Your task to perform on an android device: toggle notification dots Image 0: 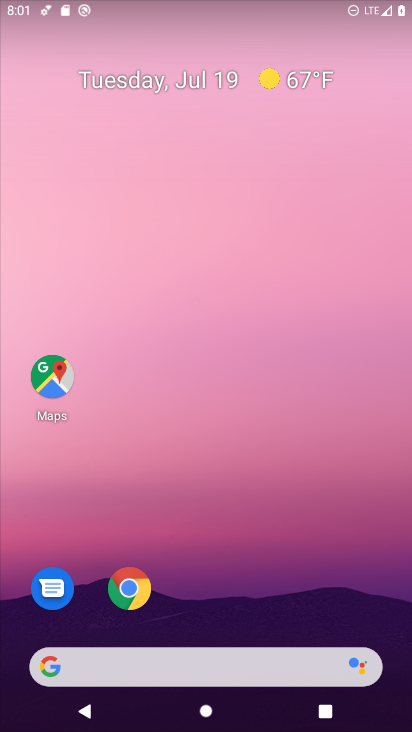
Step 0: drag from (363, 608) to (356, 142)
Your task to perform on an android device: toggle notification dots Image 1: 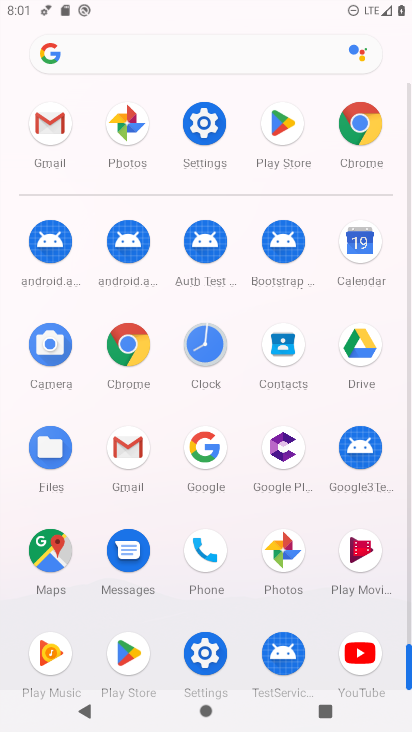
Step 1: click (208, 133)
Your task to perform on an android device: toggle notification dots Image 2: 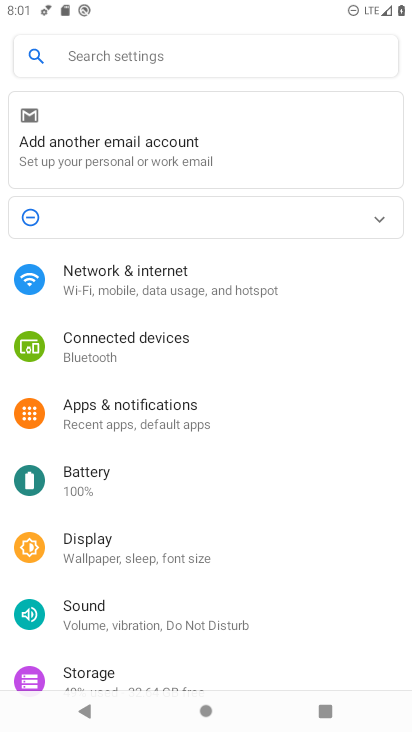
Step 2: drag from (353, 514) to (353, 403)
Your task to perform on an android device: toggle notification dots Image 3: 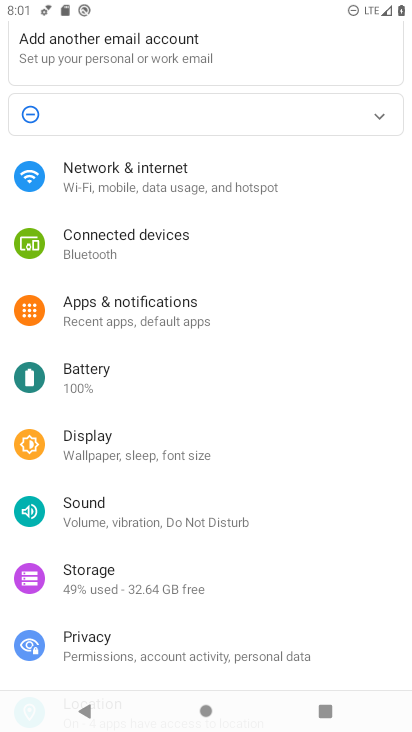
Step 3: drag from (338, 519) to (337, 407)
Your task to perform on an android device: toggle notification dots Image 4: 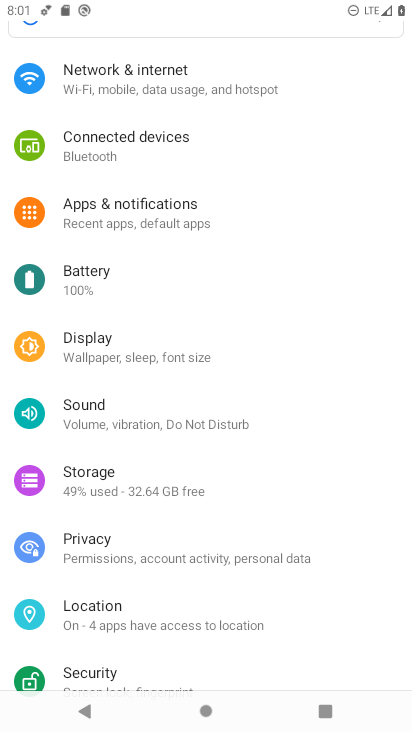
Step 4: drag from (347, 535) to (351, 448)
Your task to perform on an android device: toggle notification dots Image 5: 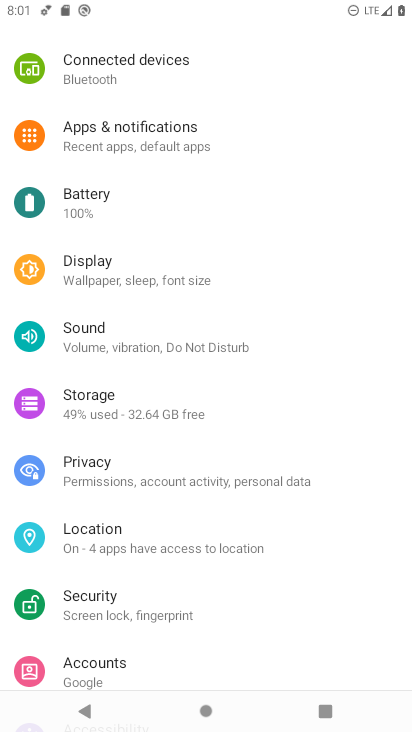
Step 5: drag from (345, 540) to (343, 443)
Your task to perform on an android device: toggle notification dots Image 6: 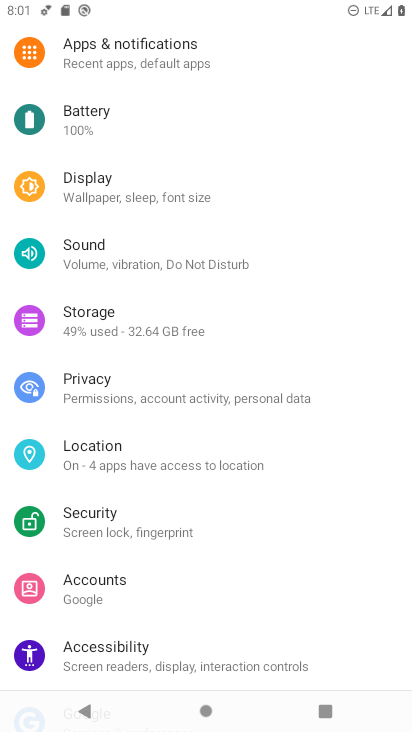
Step 6: drag from (325, 546) to (329, 350)
Your task to perform on an android device: toggle notification dots Image 7: 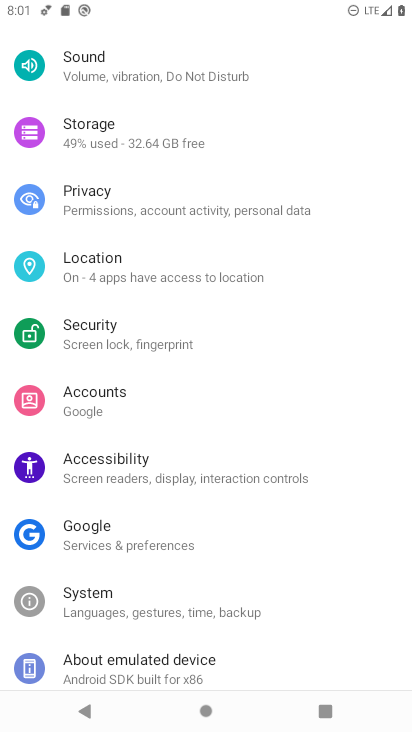
Step 7: drag from (336, 285) to (344, 389)
Your task to perform on an android device: toggle notification dots Image 8: 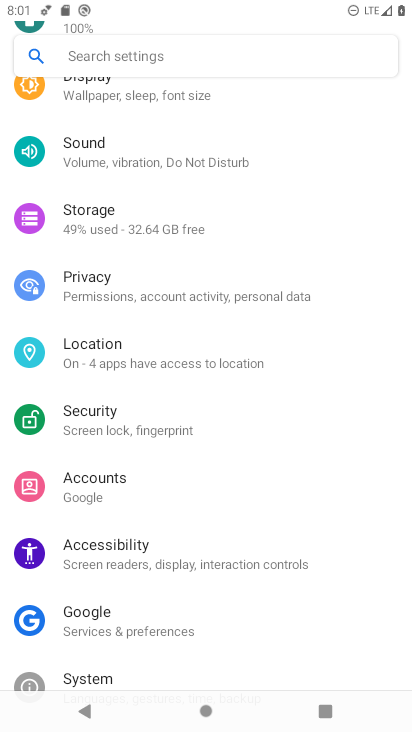
Step 8: drag from (354, 314) to (353, 397)
Your task to perform on an android device: toggle notification dots Image 9: 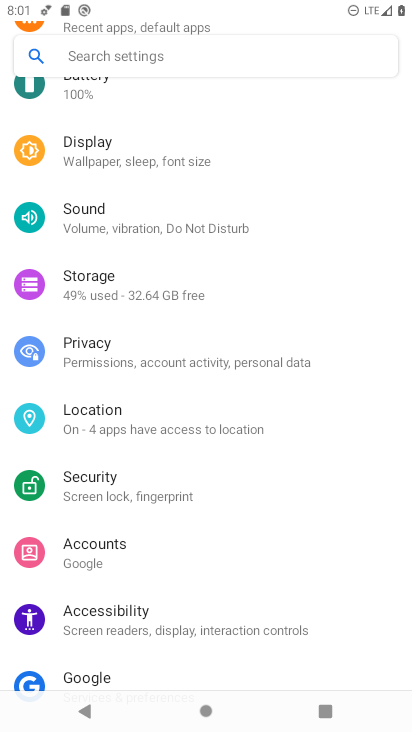
Step 9: drag from (341, 276) to (341, 382)
Your task to perform on an android device: toggle notification dots Image 10: 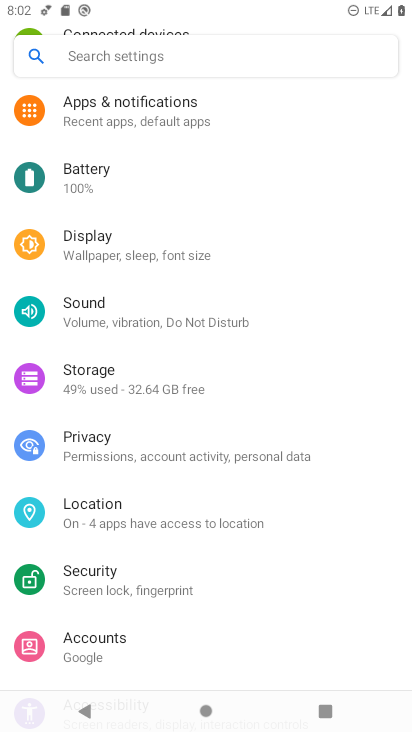
Step 10: drag from (331, 251) to (334, 378)
Your task to perform on an android device: toggle notification dots Image 11: 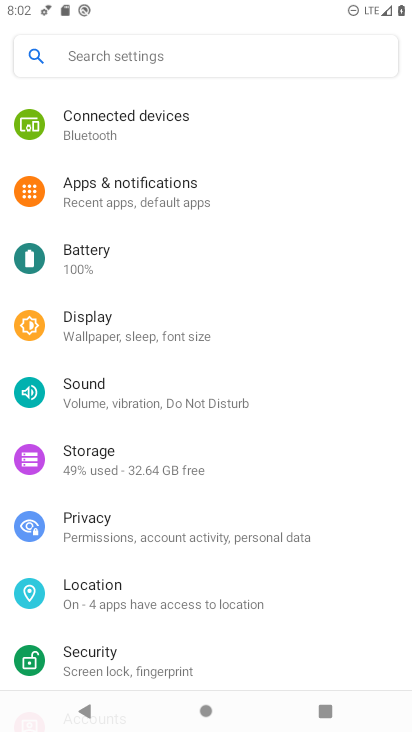
Step 11: drag from (329, 221) to (339, 489)
Your task to perform on an android device: toggle notification dots Image 12: 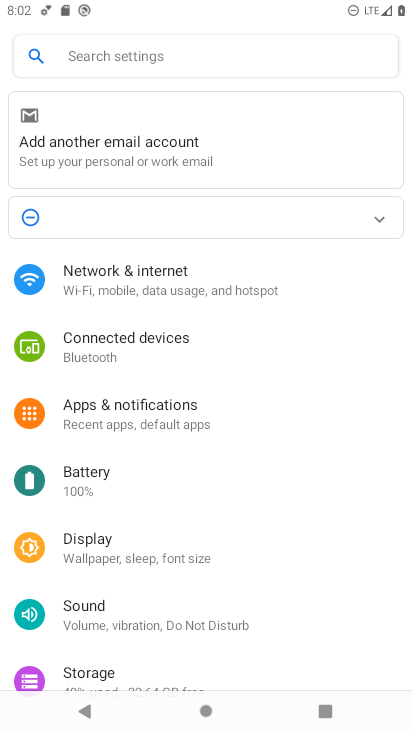
Step 12: click (245, 417)
Your task to perform on an android device: toggle notification dots Image 13: 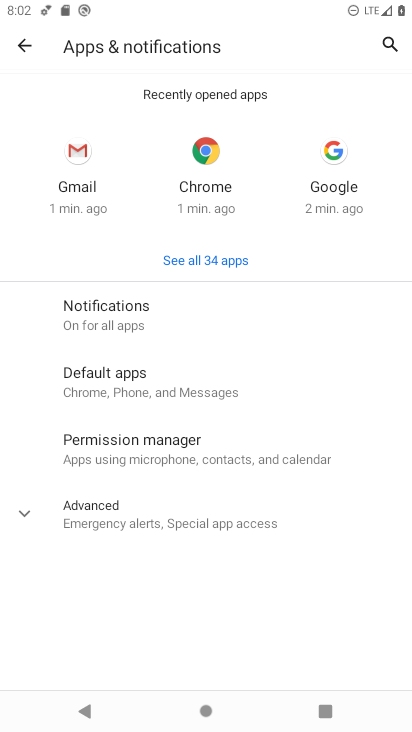
Step 13: click (133, 326)
Your task to perform on an android device: toggle notification dots Image 14: 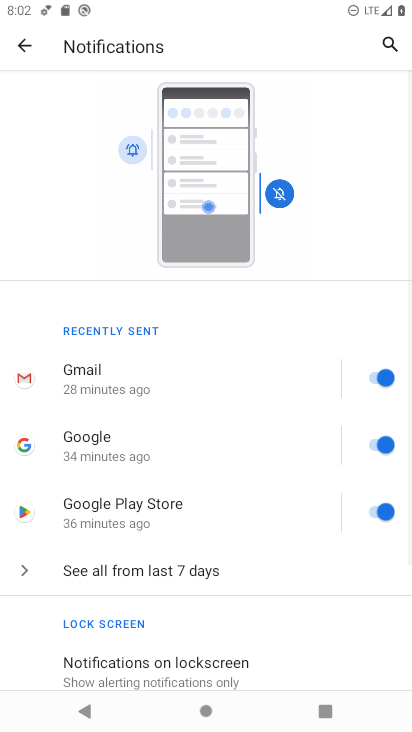
Step 14: drag from (277, 519) to (277, 314)
Your task to perform on an android device: toggle notification dots Image 15: 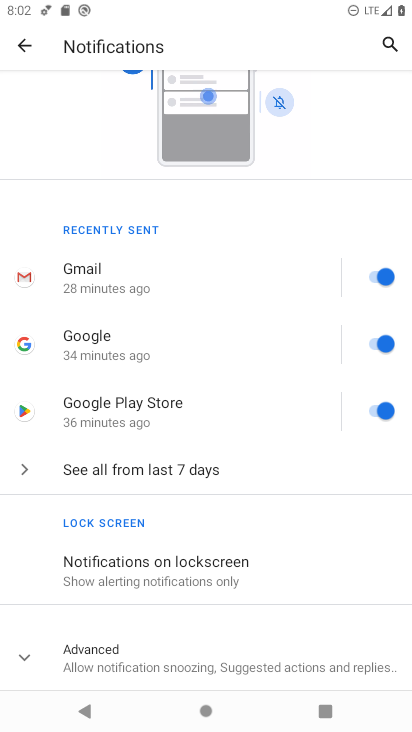
Step 15: click (325, 650)
Your task to perform on an android device: toggle notification dots Image 16: 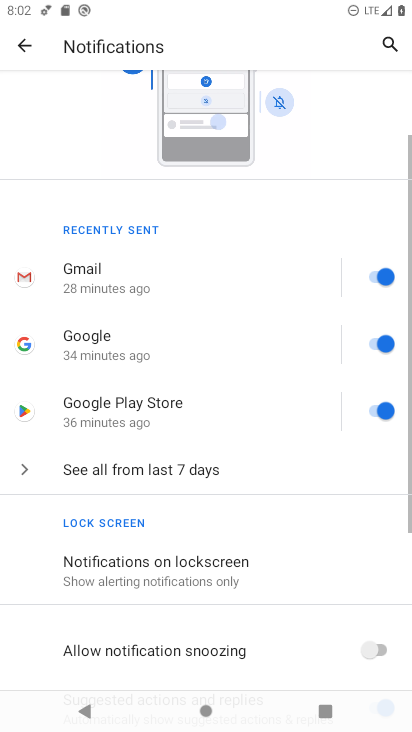
Step 16: drag from (306, 629) to (299, 500)
Your task to perform on an android device: toggle notification dots Image 17: 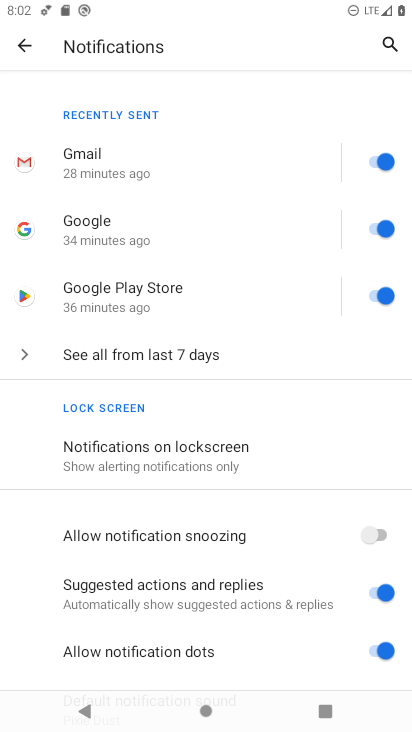
Step 17: drag from (298, 645) to (298, 524)
Your task to perform on an android device: toggle notification dots Image 18: 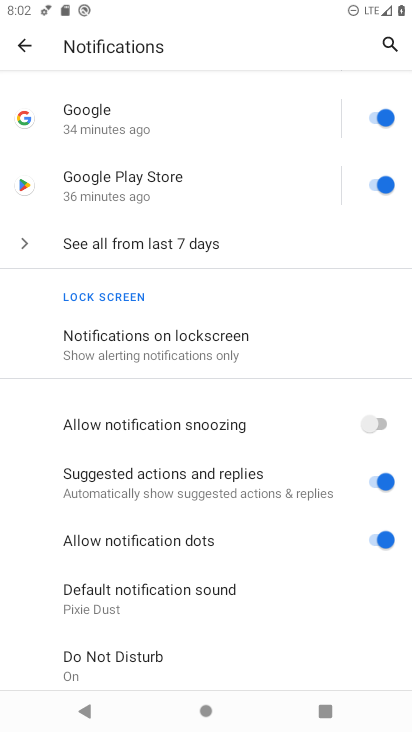
Step 18: click (382, 538)
Your task to perform on an android device: toggle notification dots Image 19: 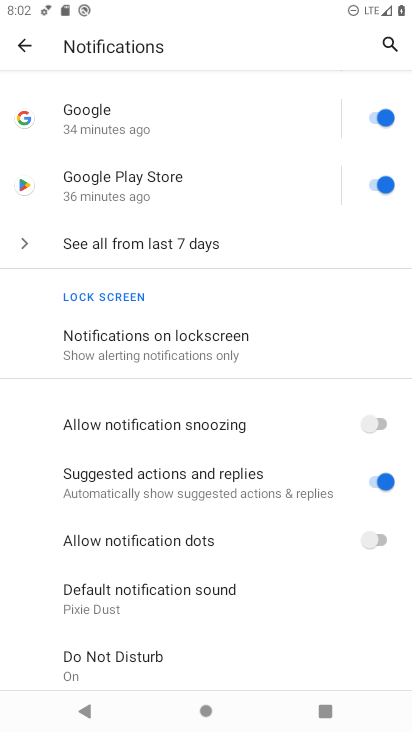
Step 19: task complete